Your task to perform on an android device: set the stopwatch Image 0: 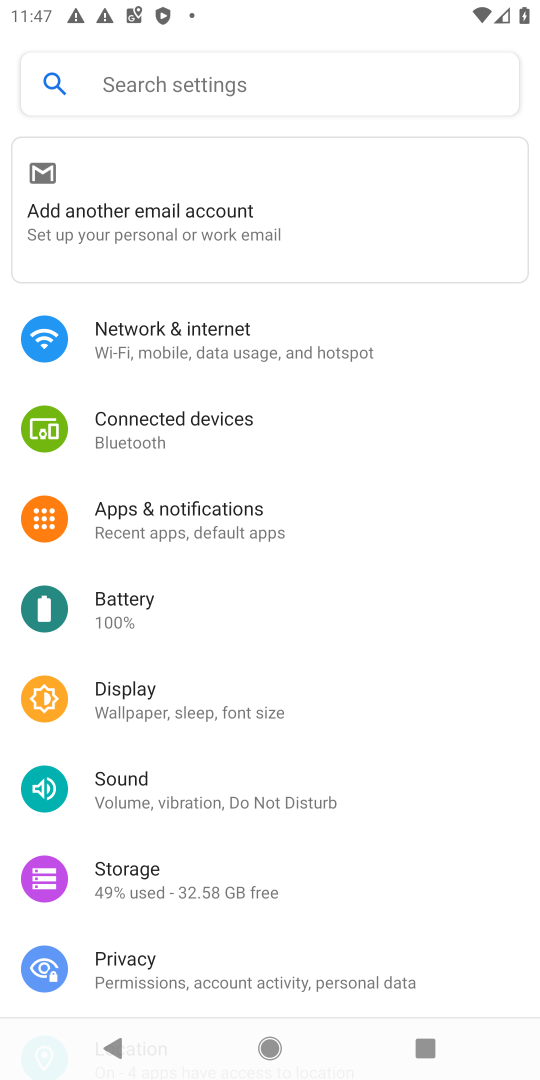
Step 0: press home button
Your task to perform on an android device: set the stopwatch Image 1: 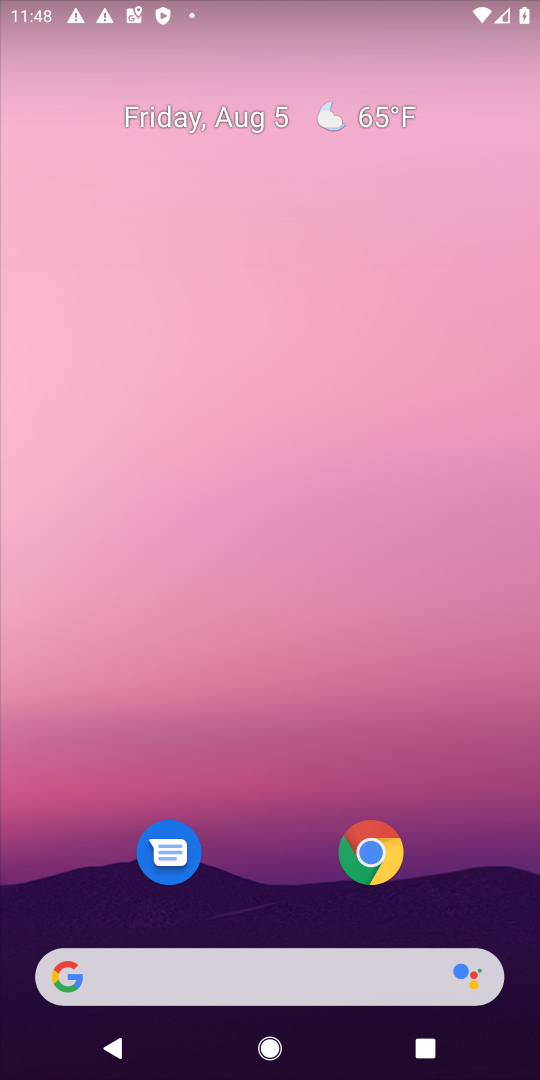
Step 1: drag from (345, 1008) to (372, 294)
Your task to perform on an android device: set the stopwatch Image 2: 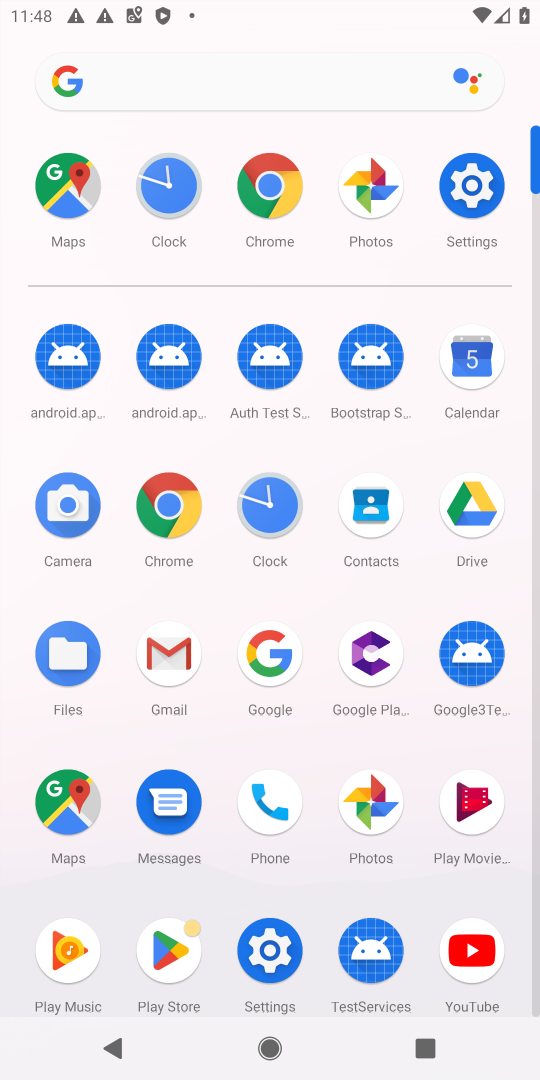
Step 2: click (266, 514)
Your task to perform on an android device: set the stopwatch Image 3: 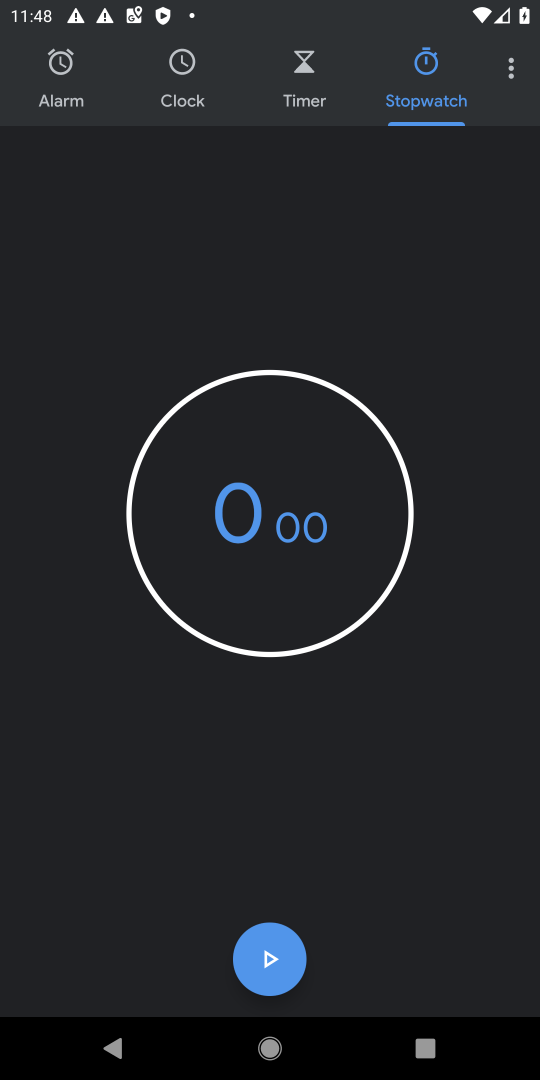
Step 3: click (273, 953)
Your task to perform on an android device: set the stopwatch Image 4: 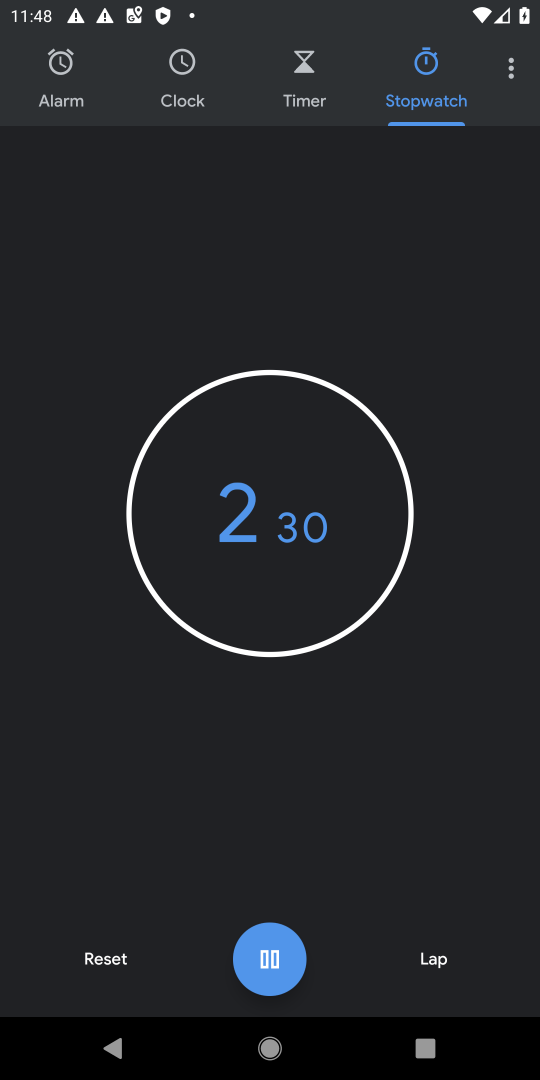
Step 4: click (270, 960)
Your task to perform on an android device: set the stopwatch Image 5: 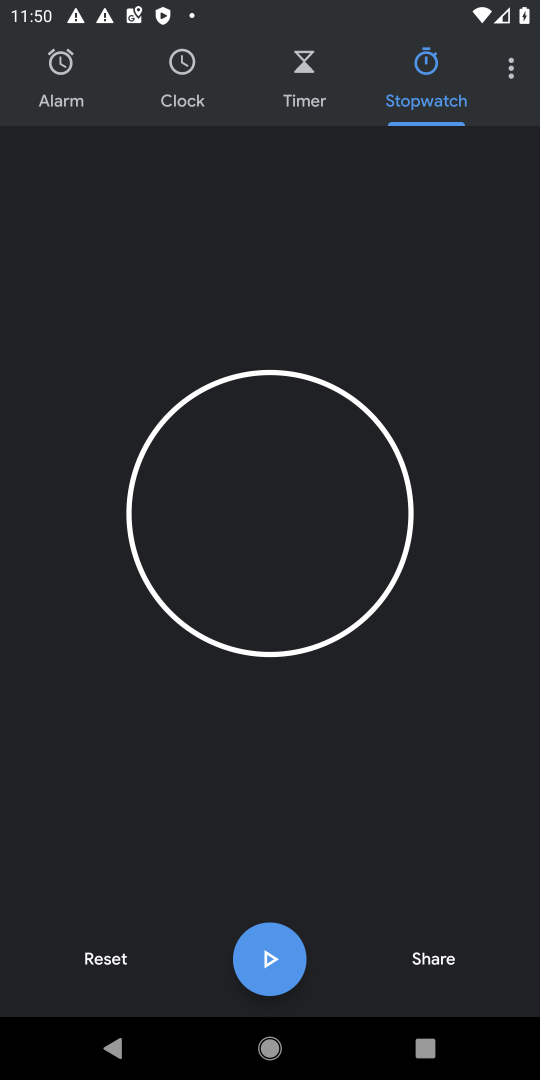
Step 5: task complete